Your task to perform on an android device: Go to Maps Image 0: 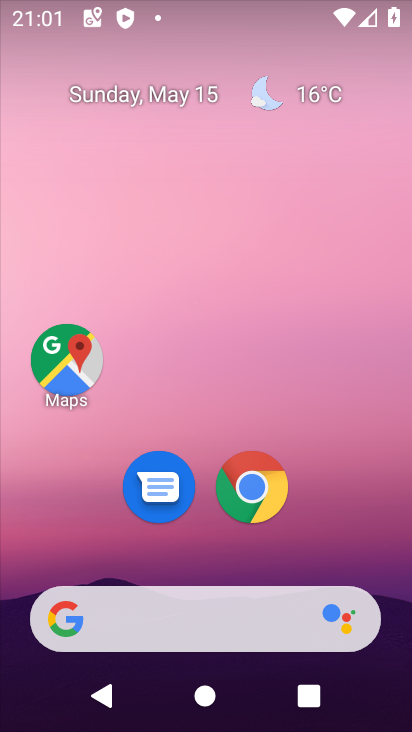
Step 0: click (71, 355)
Your task to perform on an android device: Go to Maps Image 1: 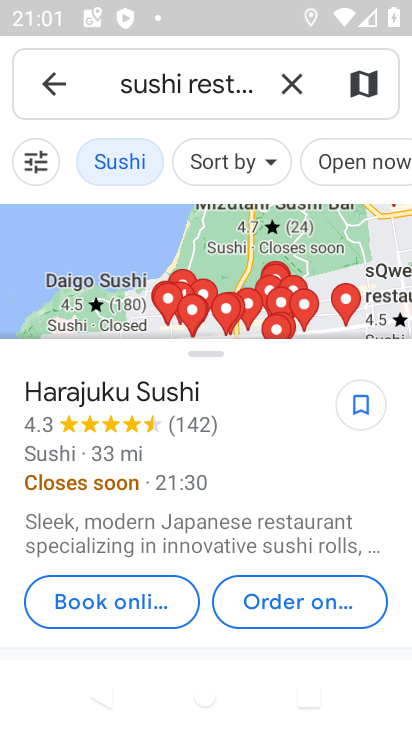
Step 1: click (51, 72)
Your task to perform on an android device: Go to Maps Image 2: 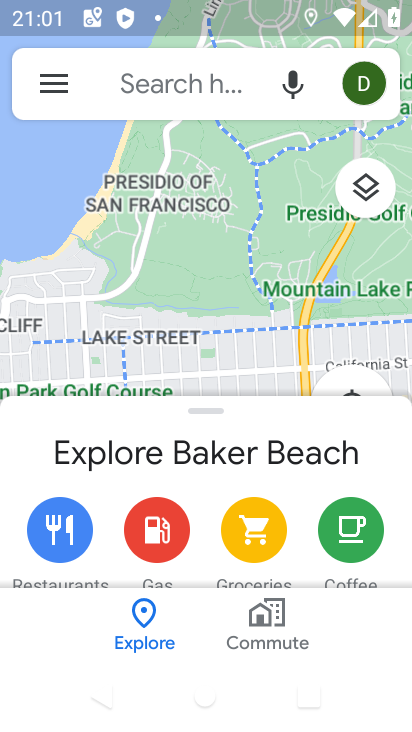
Step 2: task complete